Your task to perform on an android device: Check the weather Image 0: 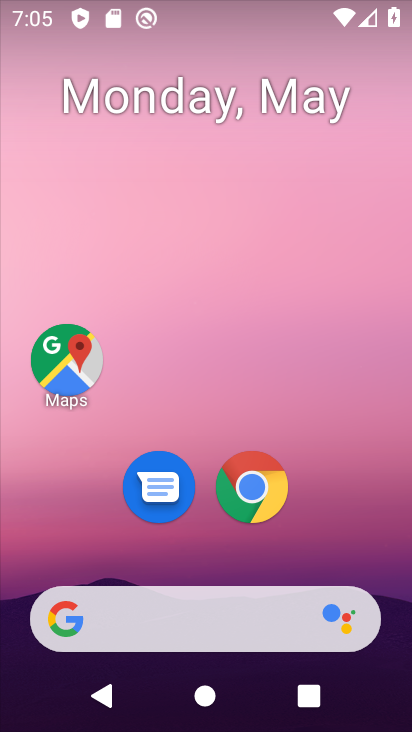
Step 0: drag from (308, 632) to (284, 226)
Your task to perform on an android device: Check the weather Image 1: 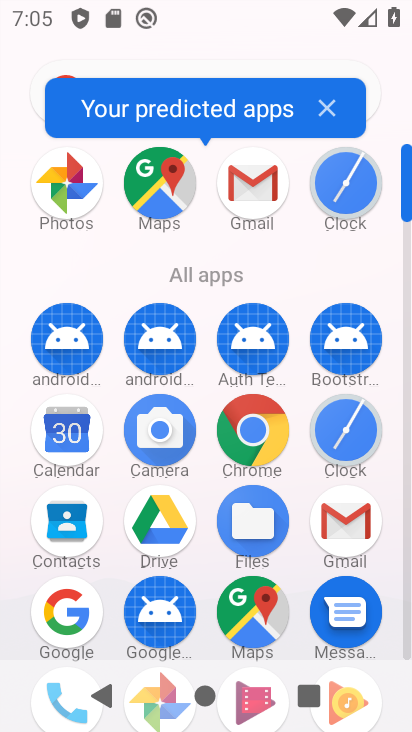
Step 1: click (334, 117)
Your task to perform on an android device: Check the weather Image 2: 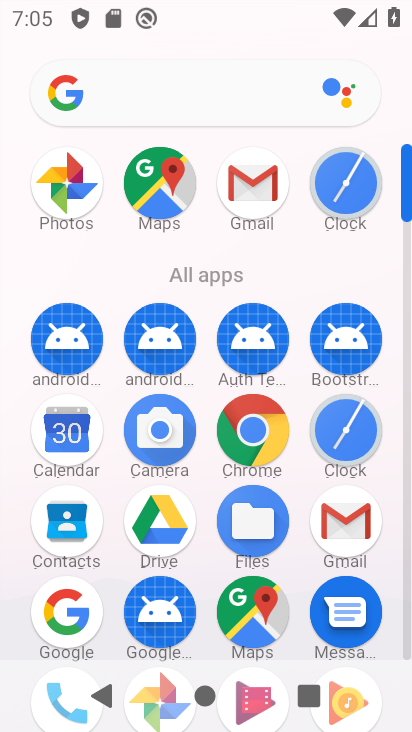
Step 2: click (187, 103)
Your task to perform on an android device: Check the weather Image 3: 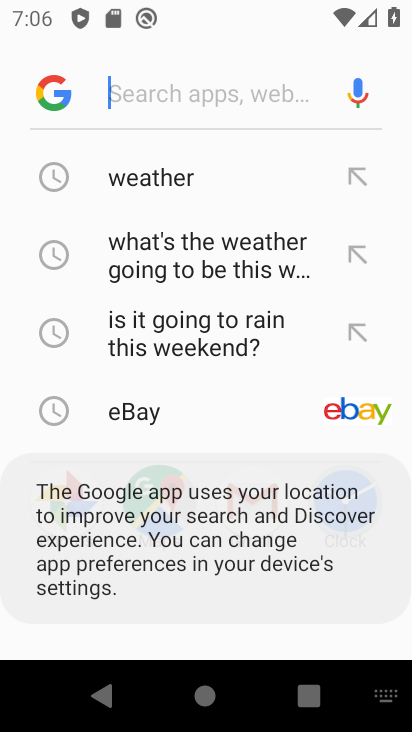
Step 3: click (134, 182)
Your task to perform on an android device: Check the weather Image 4: 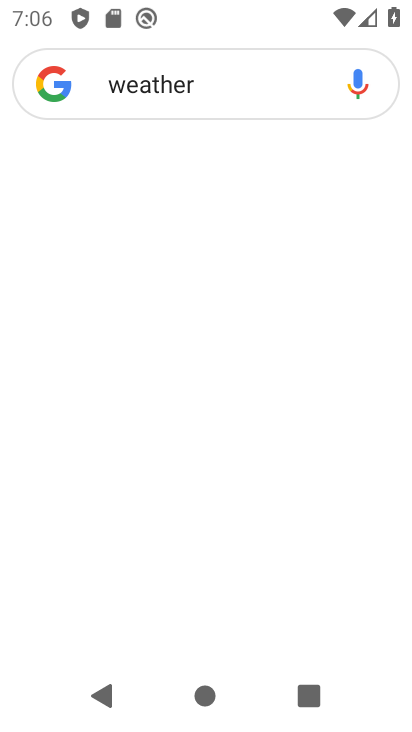
Step 4: click (140, 186)
Your task to perform on an android device: Check the weather Image 5: 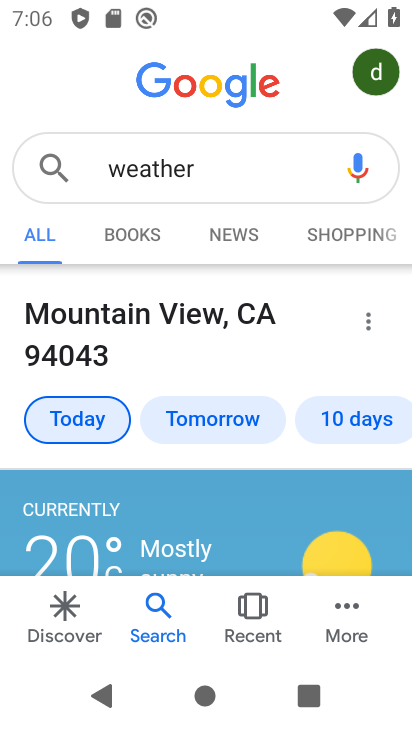
Step 5: task complete